Your task to perform on an android device: see sites visited before in the chrome app Image 0: 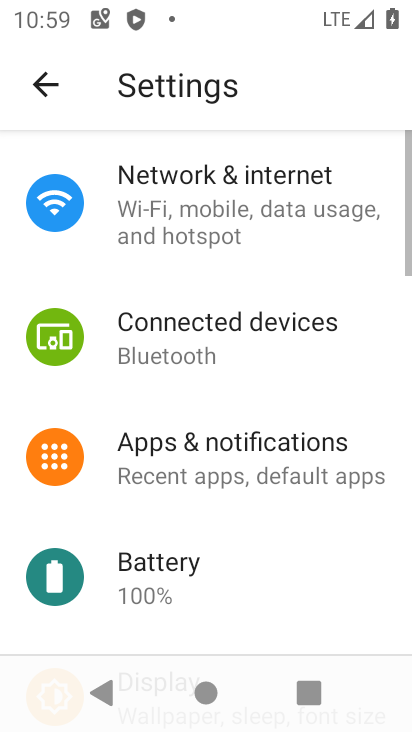
Step 0: press home button
Your task to perform on an android device: see sites visited before in the chrome app Image 1: 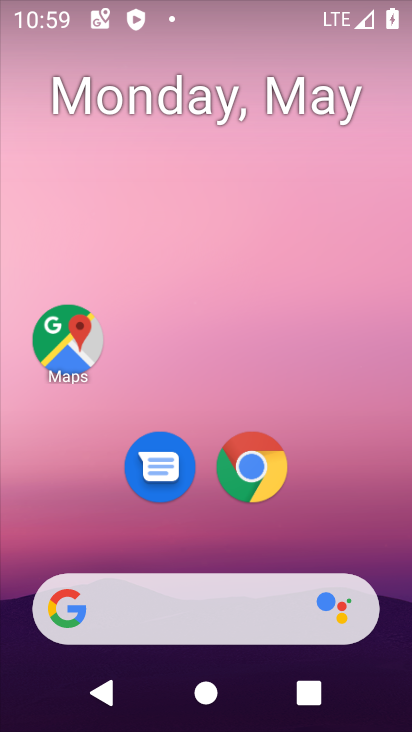
Step 1: click (251, 465)
Your task to perform on an android device: see sites visited before in the chrome app Image 2: 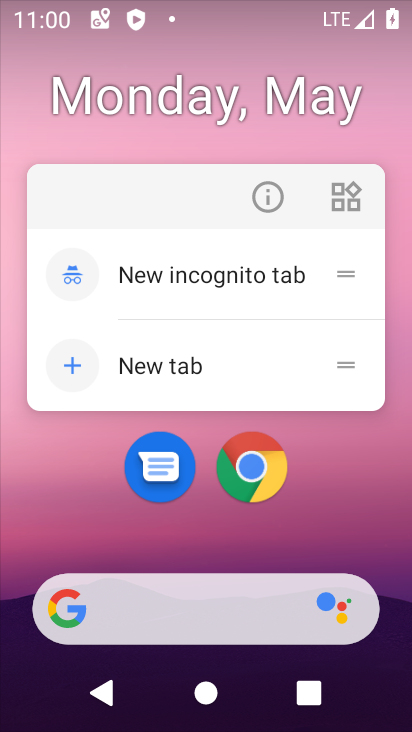
Step 2: drag from (256, 662) to (265, 621)
Your task to perform on an android device: see sites visited before in the chrome app Image 3: 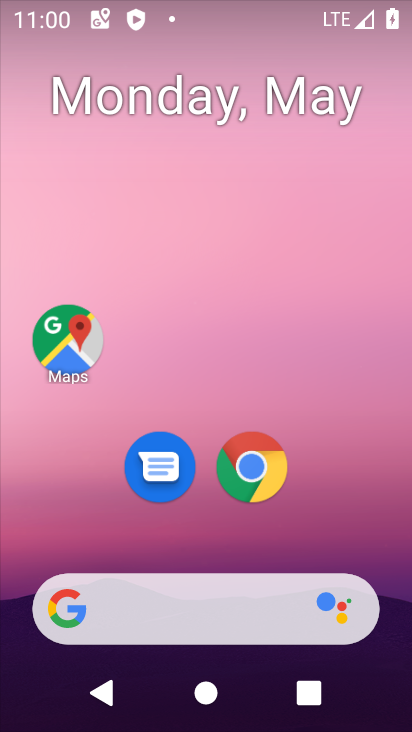
Step 3: click (256, 469)
Your task to perform on an android device: see sites visited before in the chrome app Image 4: 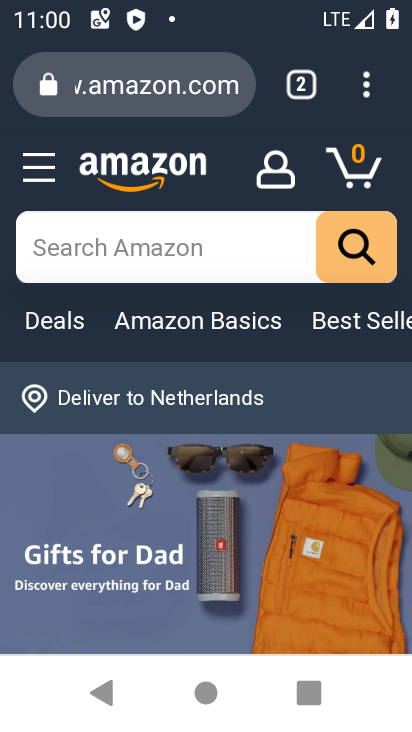
Step 4: click (367, 79)
Your task to perform on an android device: see sites visited before in the chrome app Image 5: 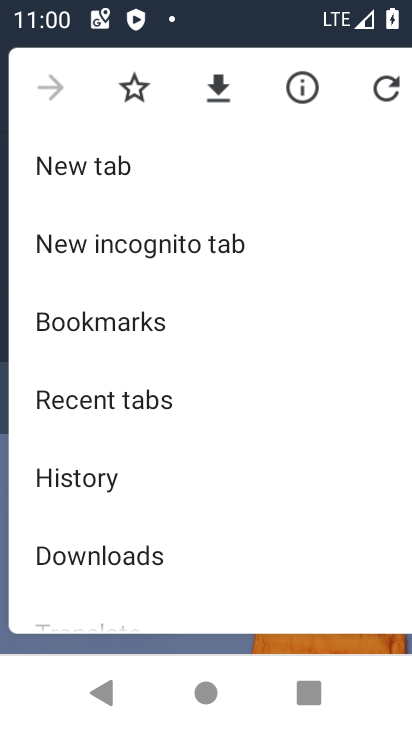
Step 5: drag from (188, 537) to (182, 264)
Your task to perform on an android device: see sites visited before in the chrome app Image 6: 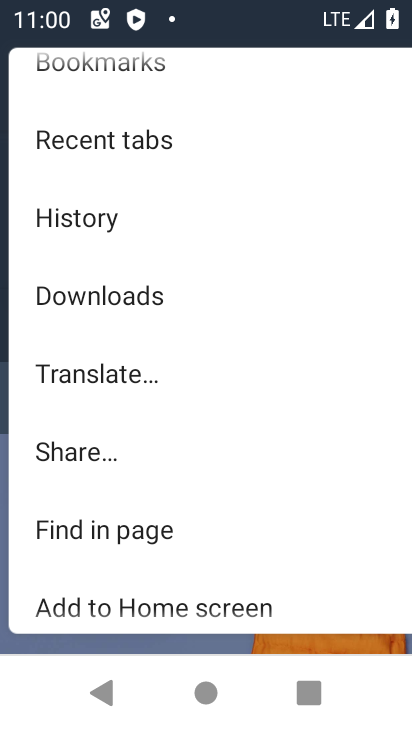
Step 6: drag from (215, 549) to (200, 300)
Your task to perform on an android device: see sites visited before in the chrome app Image 7: 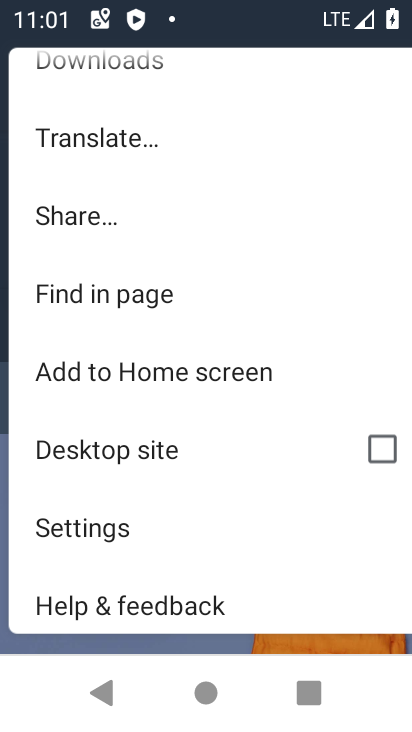
Step 7: drag from (271, 212) to (280, 479)
Your task to perform on an android device: see sites visited before in the chrome app Image 8: 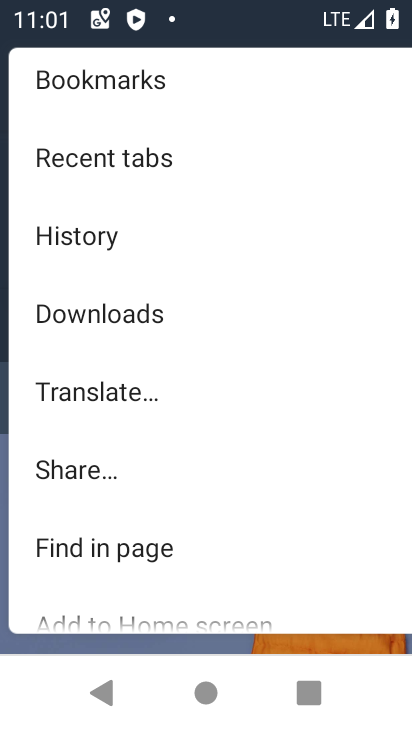
Step 8: drag from (268, 179) to (266, 475)
Your task to perform on an android device: see sites visited before in the chrome app Image 9: 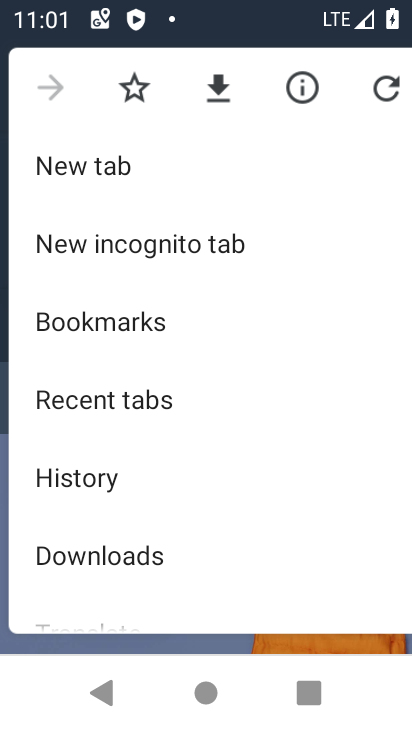
Step 9: click (68, 399)
Your task to perform on an android device: see sites visited before in the chrome app Image 10: 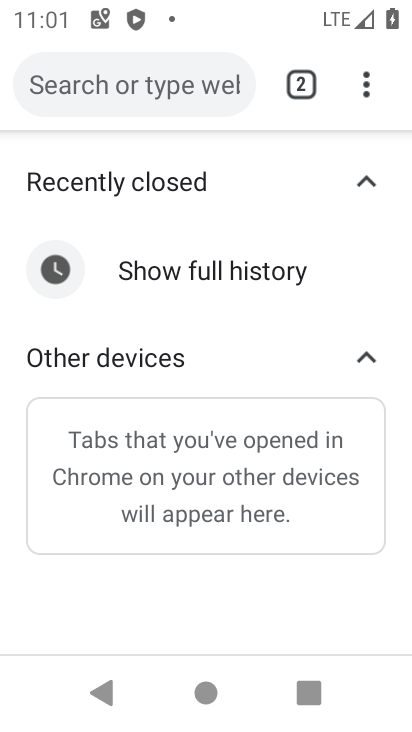
Step 10: task complete